Your task to perform on an android device: open app "Booking.com: Hotels and more" (install if not already installed) Image 0: 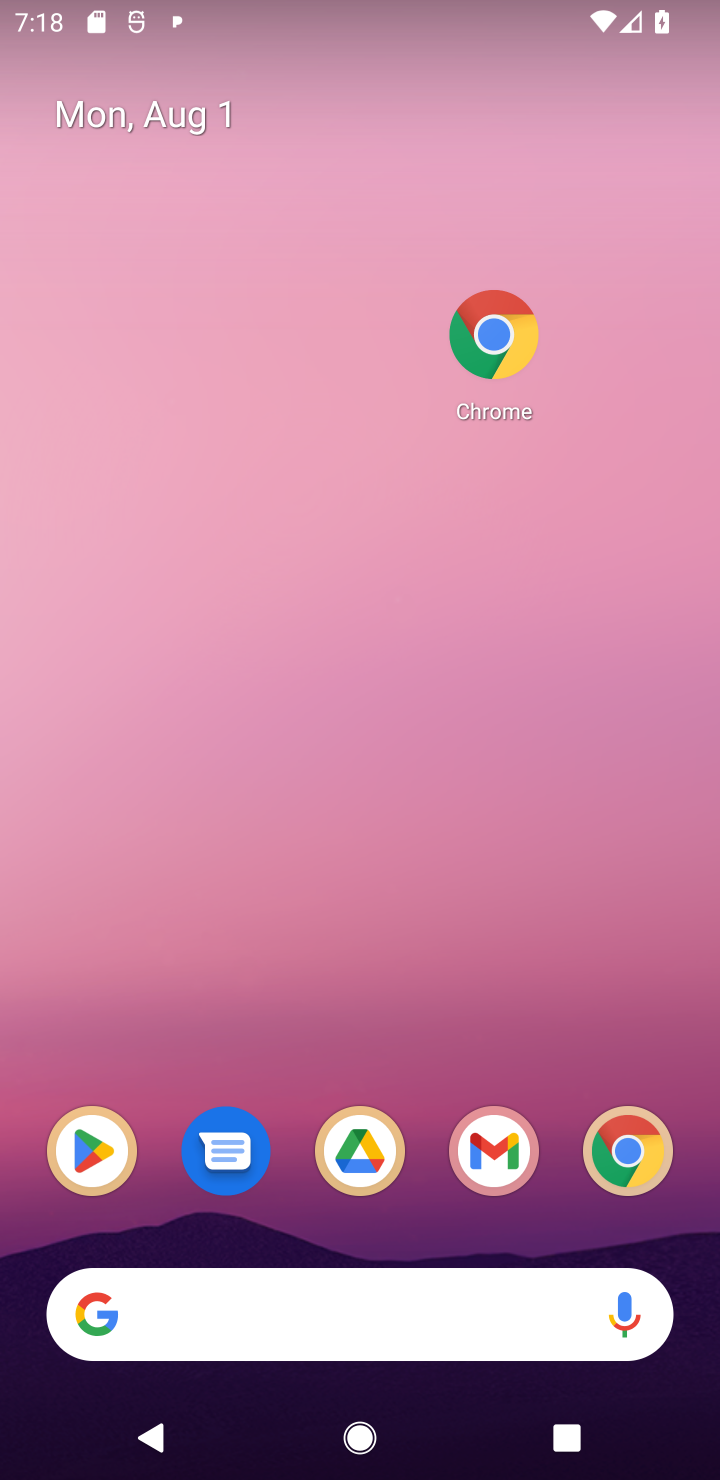
Step 0: click (113, 1156)
Your task to perform on an android device: open app "Booking.com: Hotels and more" (install if not already installed) Image 1: 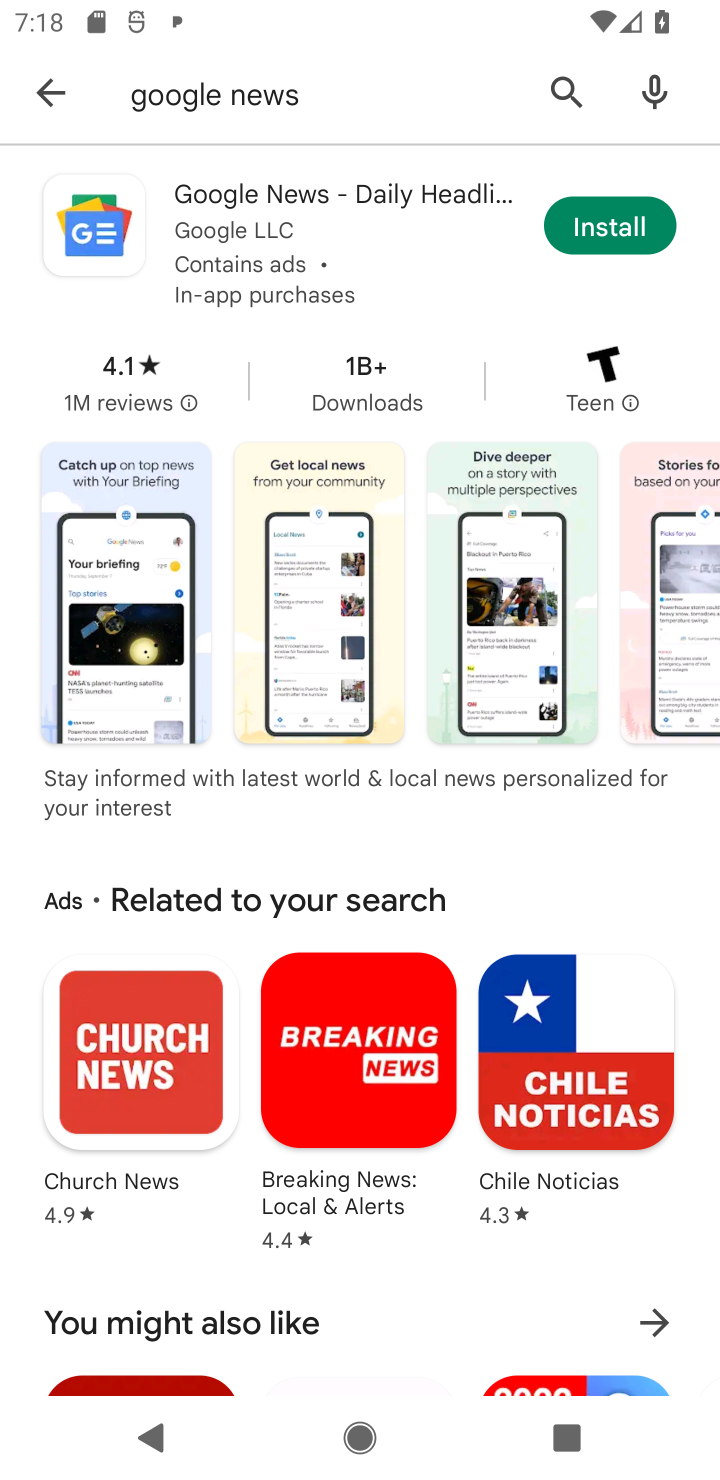
Step 1: click (571, 98)
Your task to perform on an android device: open app "Booking.com: Hotels and more" (install if not already installed) Image 2: 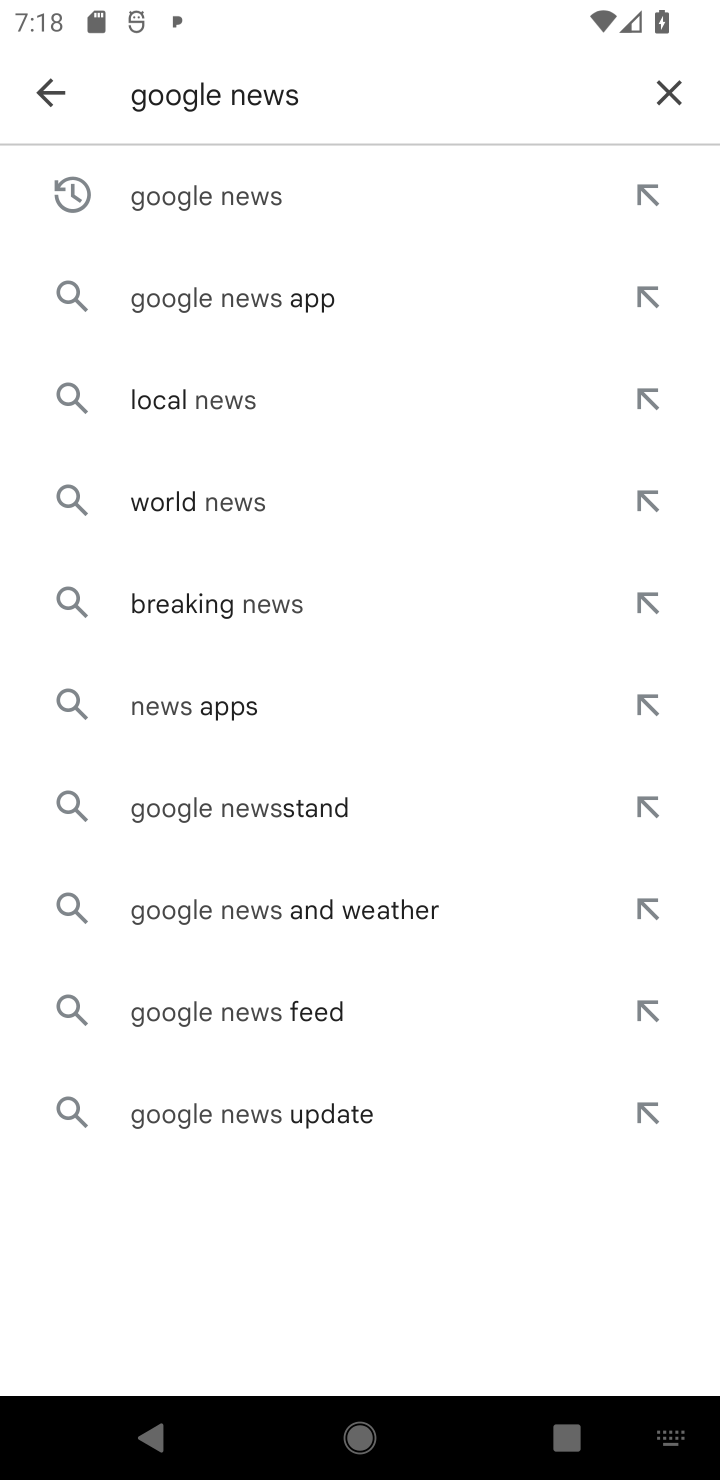
Step 2: click (664, 92)
Your task to perform on an android device: open app "Booking.com: Hotels and more" (install if not already installed) Image 3: 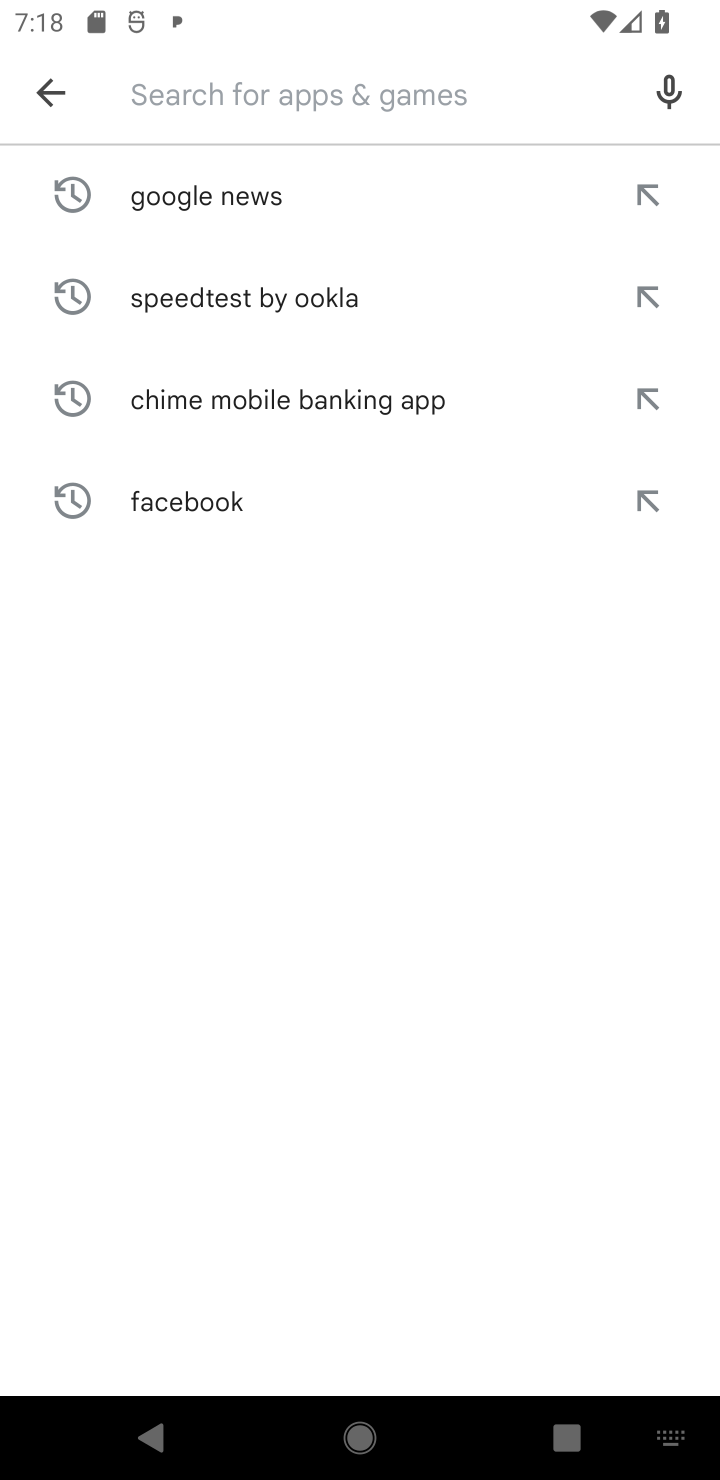
Step 3: type "Booking.com: Hotels and more"
Your task to perform on an android device: open app "Booking.com: Hotels and more" (install if not already installed) Image 4: 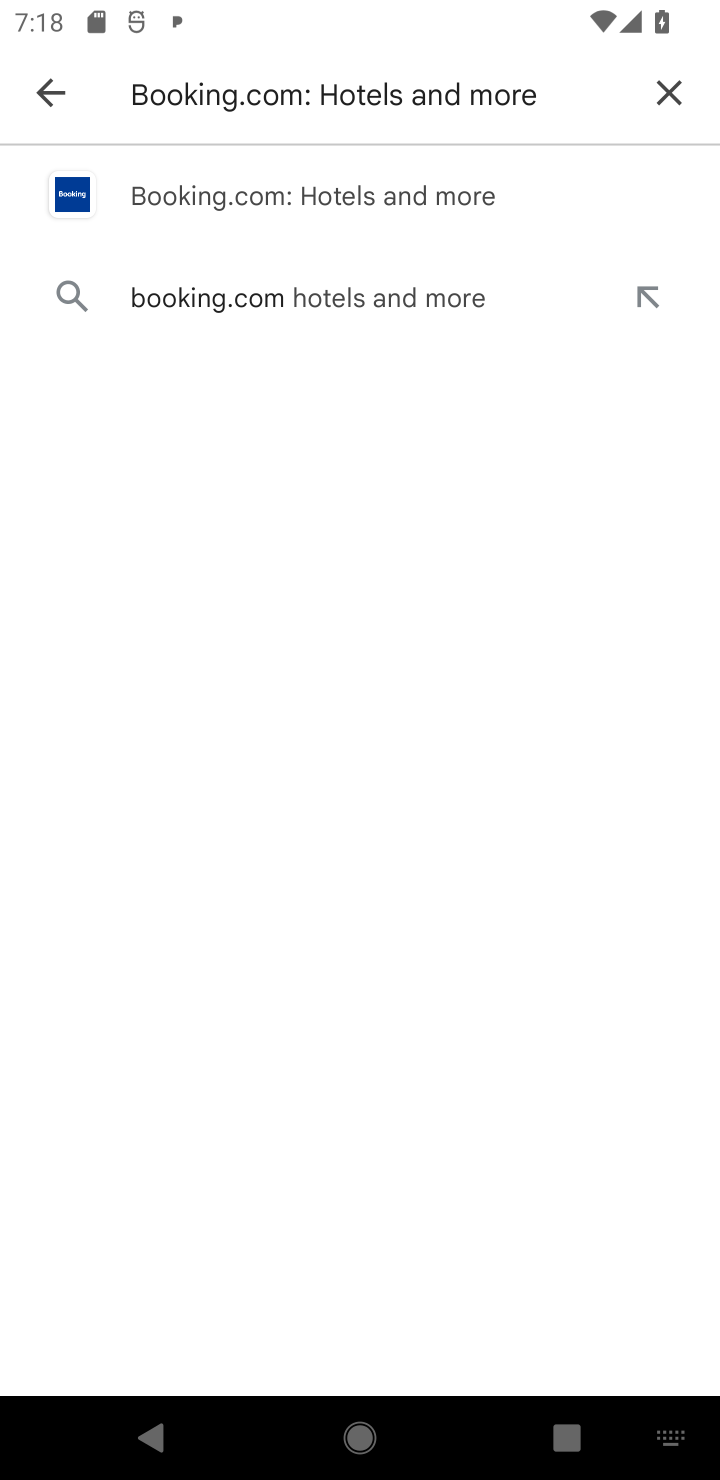
Step 4: click (170, 206)
Your task to perform on an android device: open app "Booking.com: Hotels and more" (install if not already installed) Image 5: 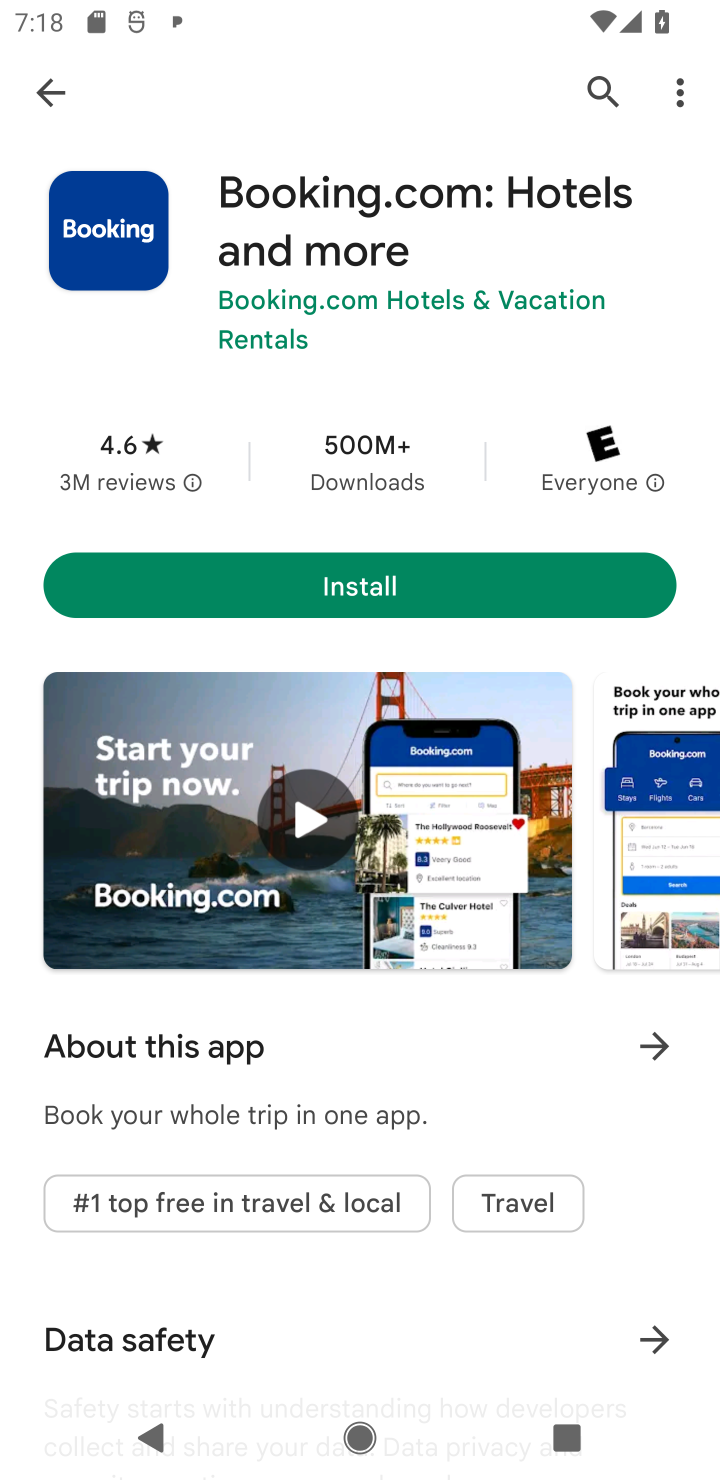
Step 5: click (333, 587)
Your task to perform on an android device: open app "Booking.com: Hotels and more" (install if not already installed) Image 6: 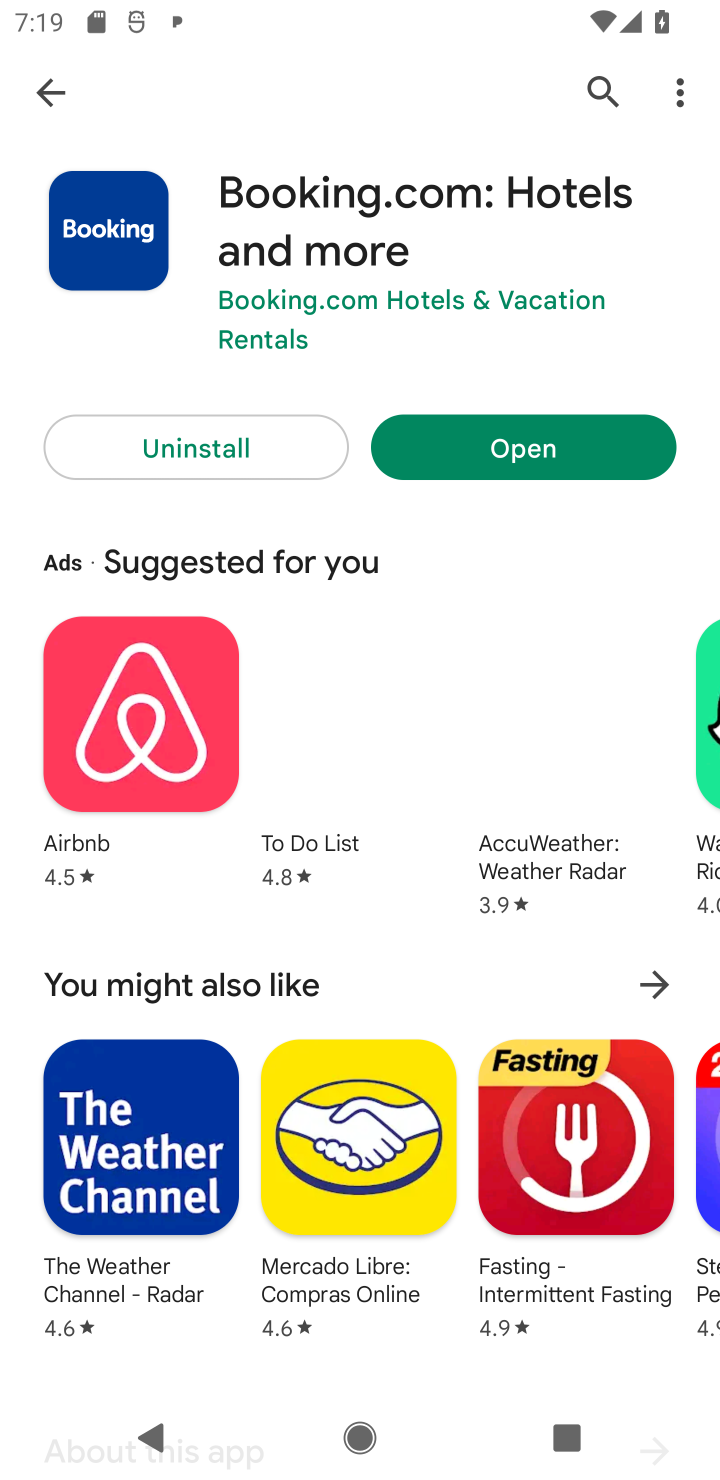
Step 6: click (562, 464)
Your task to perform on an android device: open app "Booking.com: Hotels and more" (install if not already installed) Image 7: 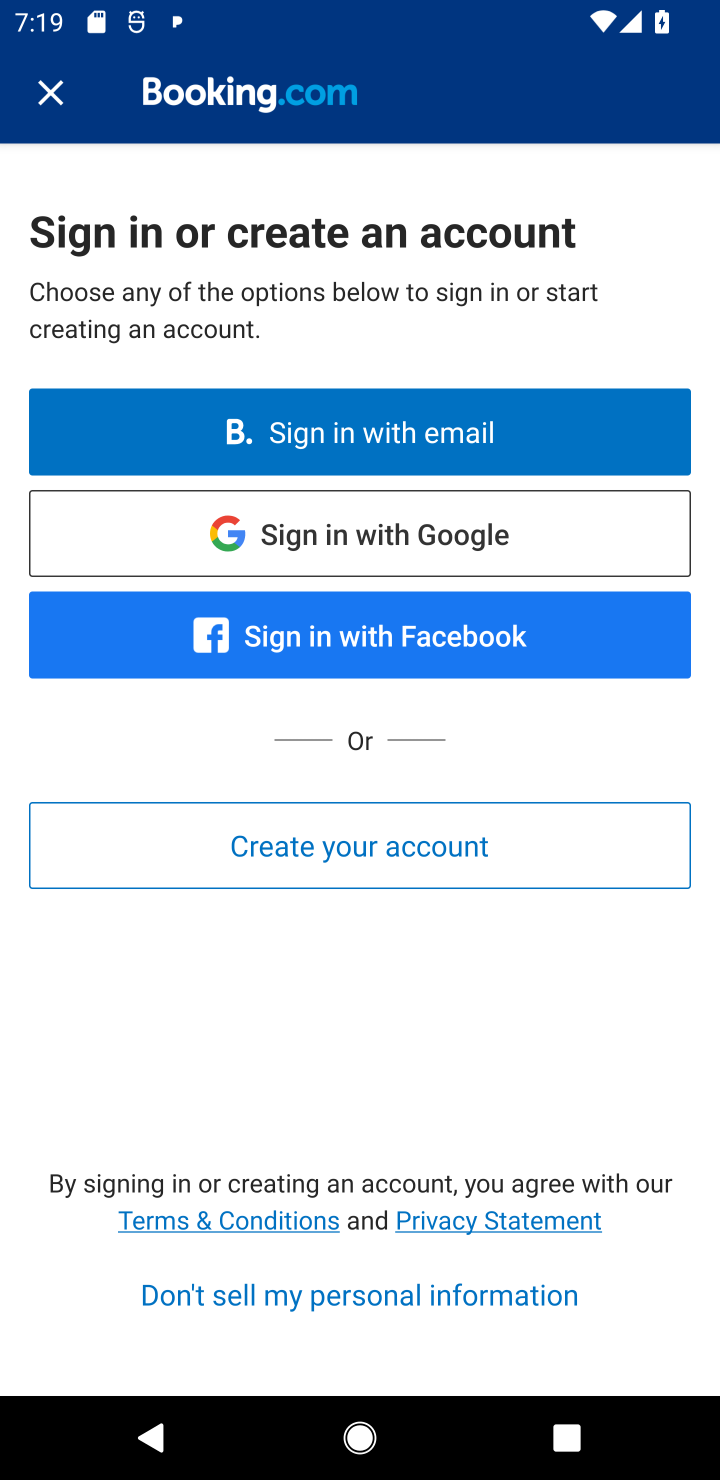
Step 7: task complete